Your task to perform on an android device: turn vacation reply on in the gmail app Image 0: 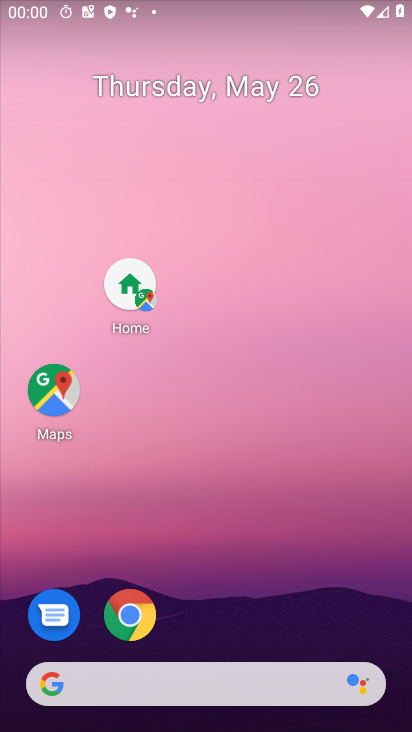
Step 0: press home button
Your task to perform on an android device: turn vacation reply on in the gmail app Image 1: 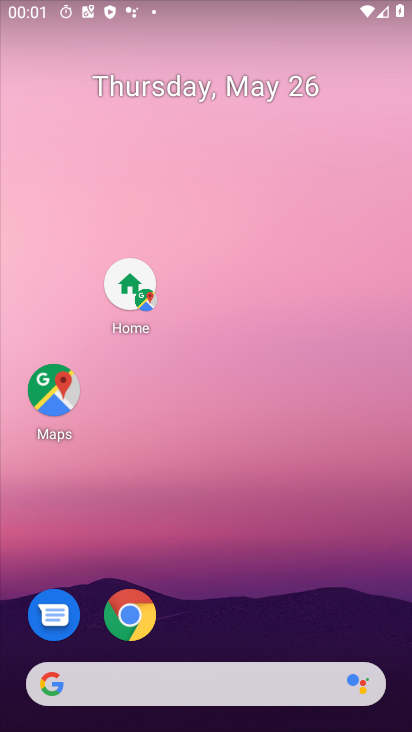
Step 1: drag from (269, 626) to (264, 167)
Your task to perform on an android device: turn vacation reply on in the gmail app Image 2: 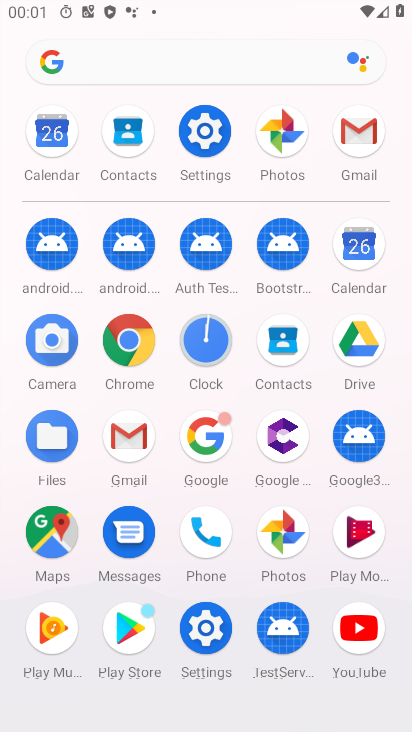
Step 2: click (359, 146)
Your task to perform on an android device: turn vacation reply on in the gmail app Image 3: 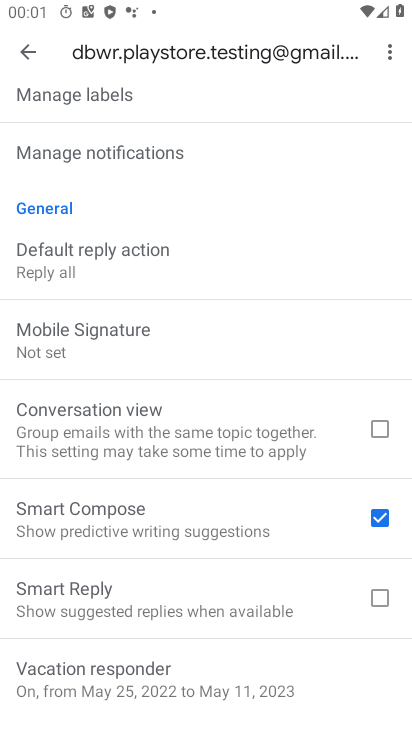
Step 3: click (103, 672)
Your task to perform on an android device: turn vacation reply on in the gmail app Image 4: 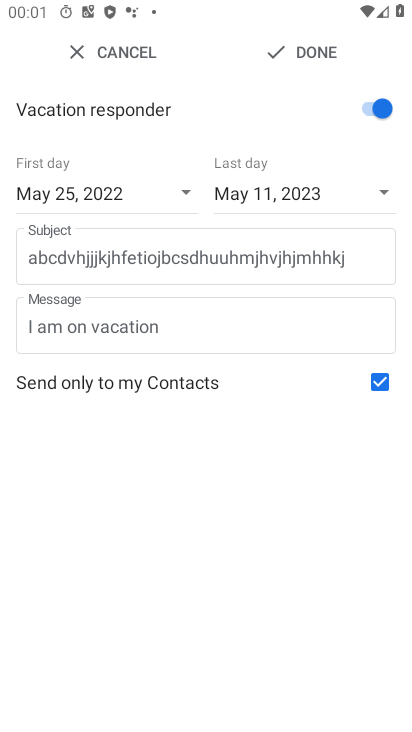
Step 4: task complete